Your task to perform on an android device: manage bookmarks in the chrome app Image 0: 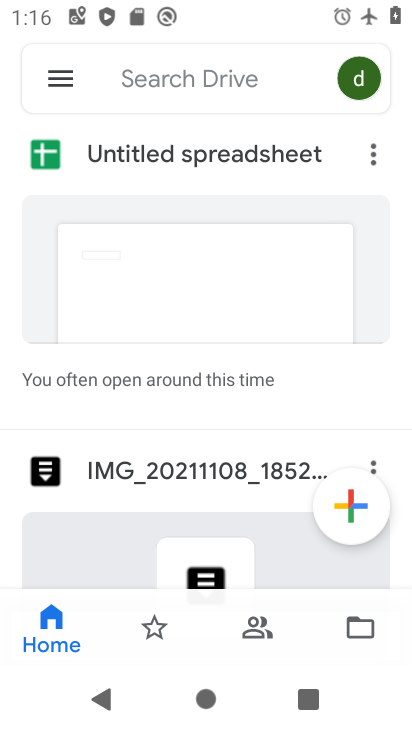
Step 0: press home button
Your task to perform on an android device: manage bookmarks in the chrome app Image 1: 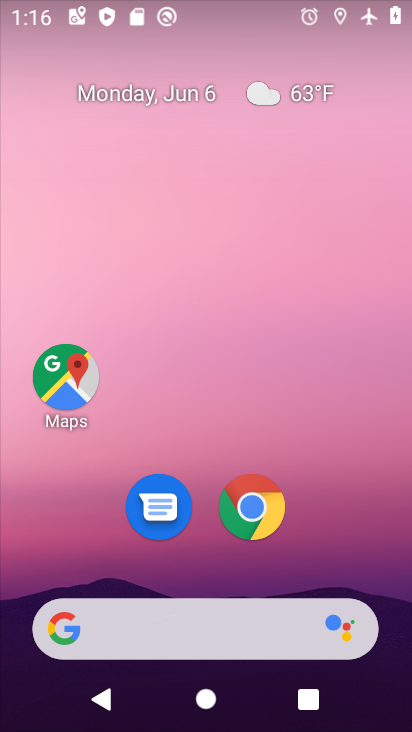
Step 1: drag from (313, 569) to (327, 67)
Your task to perform on an android device: manage bookmarks in the chrome app Image 2: 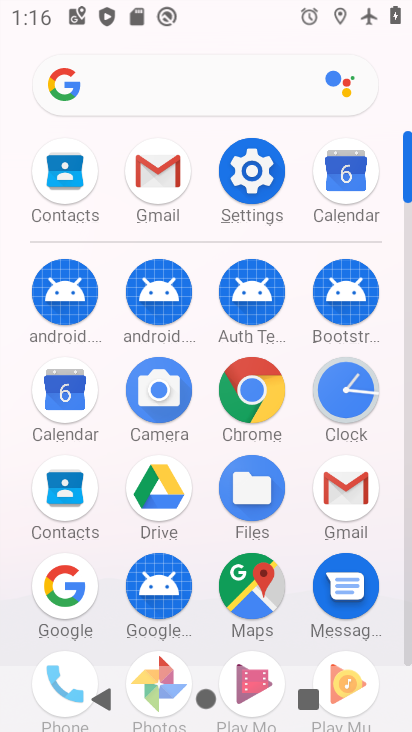
Step 2: click (242, 385)
Your task to perform on an android device: manage bookmarks in the chrome app Image 3: 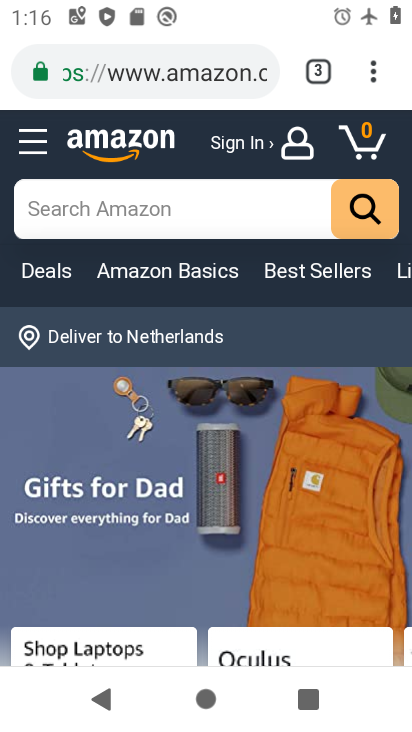
Step 3: click (370, 72)
Your task to perform on an android device: manage bookmarks in the chrome app Image 4: 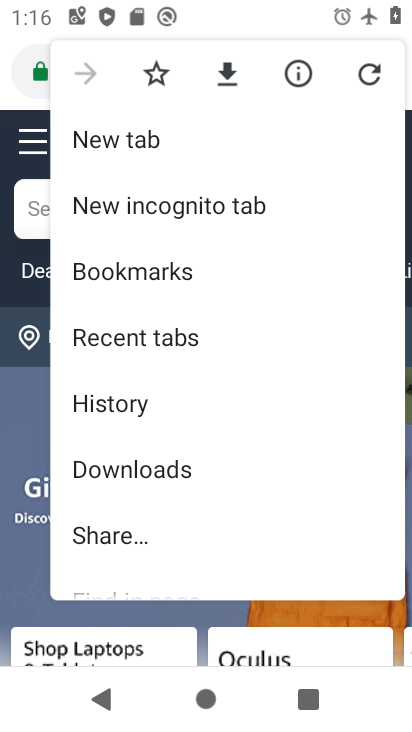
Step 4: click (238, 286)
Your task to perform on an android device: manage bookmarks in the chrome app Image 5: 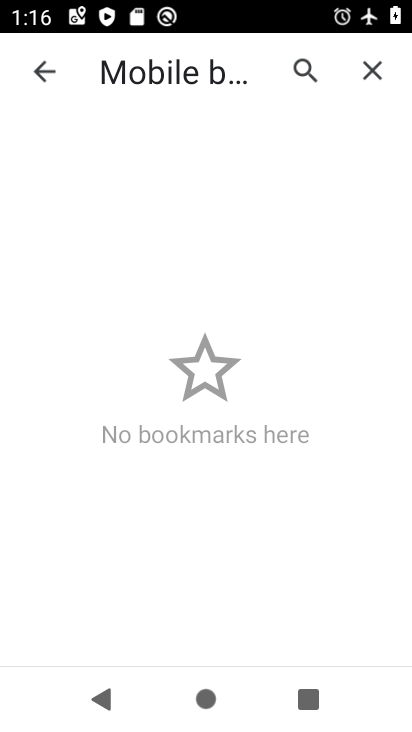
Step 5: task complete